Your task to perform on an android device: turn on data saver in the chrome app Image 0: 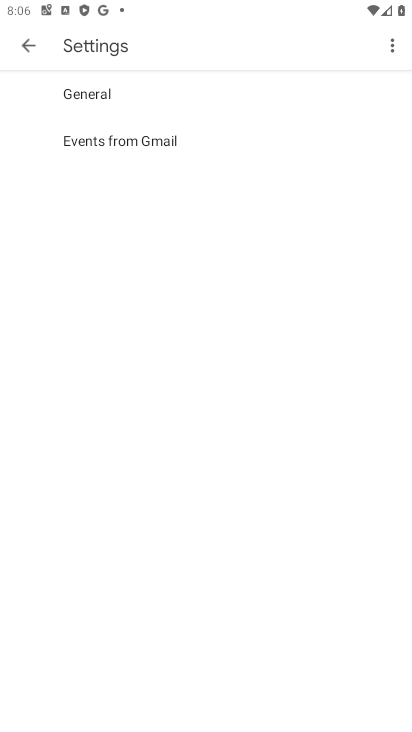
Step 0: press home button
Your task to perform on an android device: turn on data saver in the chrome app Image 1: 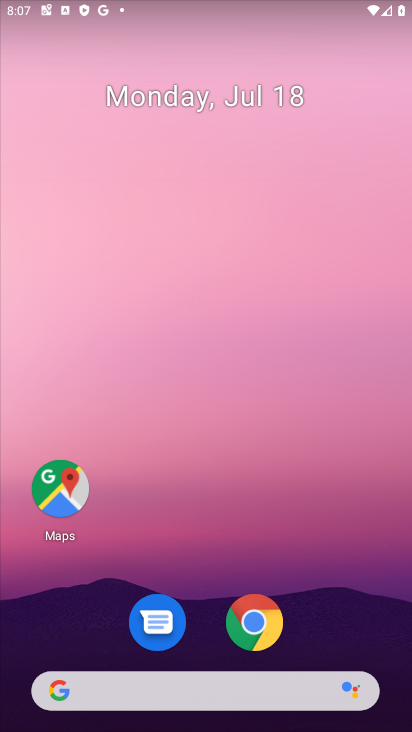
Step 1: drag from (254, 669) to (226, 95)
Your task to perform on an android device: turn on data saver in the chrome app Image 2: 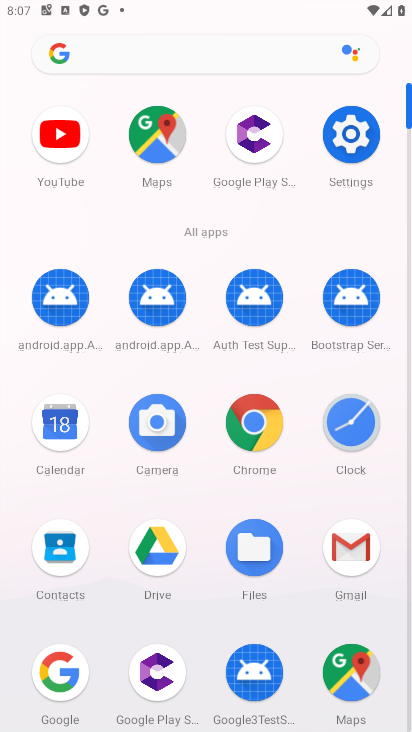
Step 2: click (258, 441)
Your task to perform on an android device: turn on data saver in the chrome app Image 3: 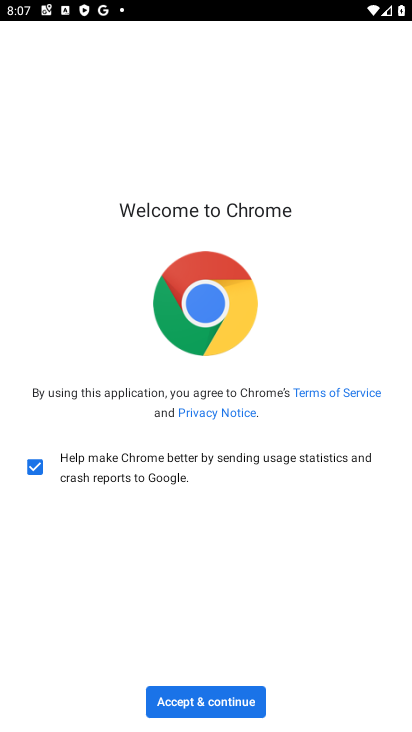
Step 3: click (222, 705)
Your task to perform on an android device: turn on data saver in the chrome app Image 4: 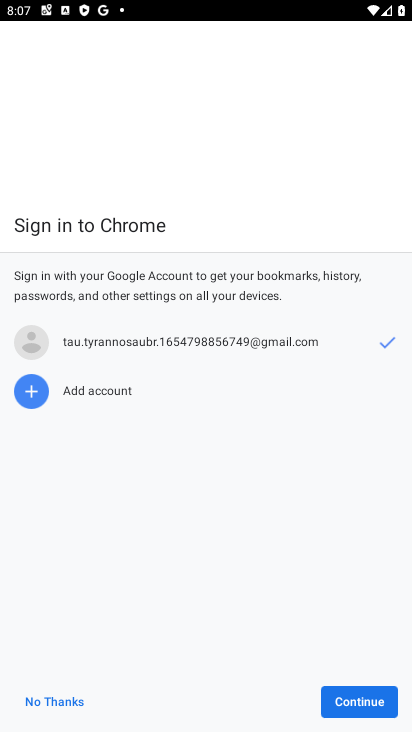
Step 4: click (352, 701)
Your task to perform on an android device: turn on data saver in the chrome app Image 5: 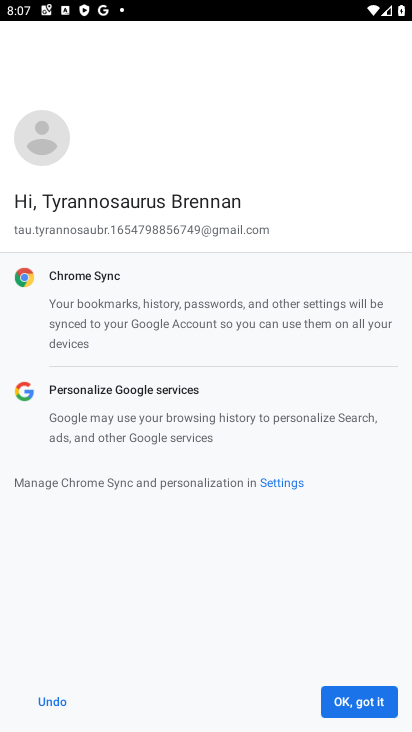
Step 5: click (368, 711)
Your task to perform on an android device: turn on data saver in the chrome app Image 6: 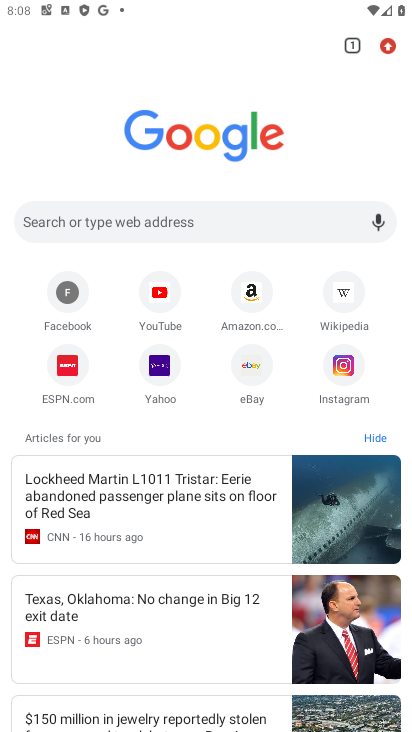
Step 6: click (388, 52)
Your task to perform on an android device: turn on data saver in the chrome app Image 7: 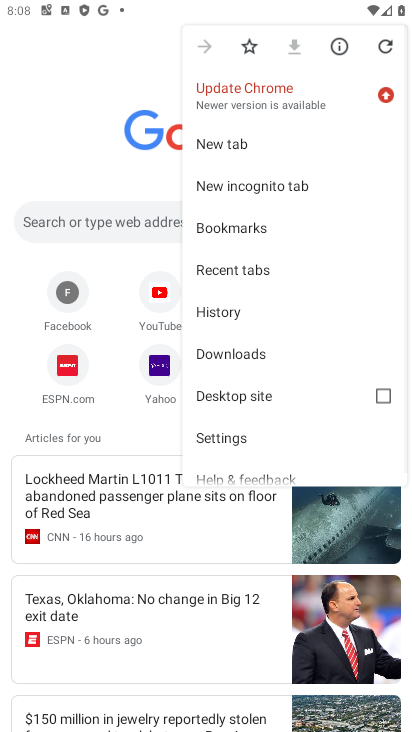
Step 7: drag from (272, 341) to (310, 53)
Your task to perform on an android device: turn on data saver in the chrome app Image 8: 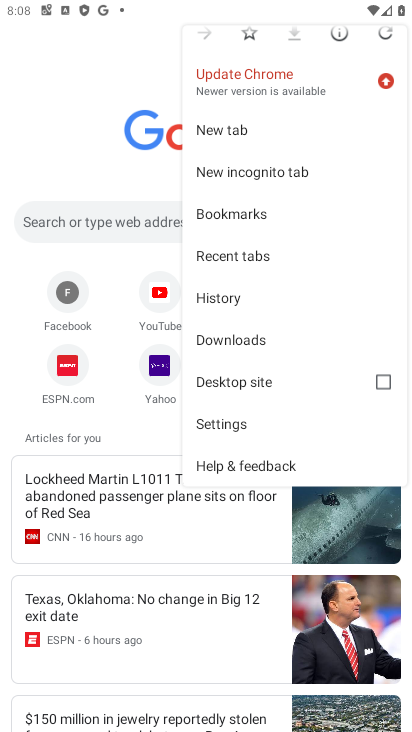
Step 8: click (228, 423)
Your task to perform on an android device: turn on data saver in the chrome app Image 9: 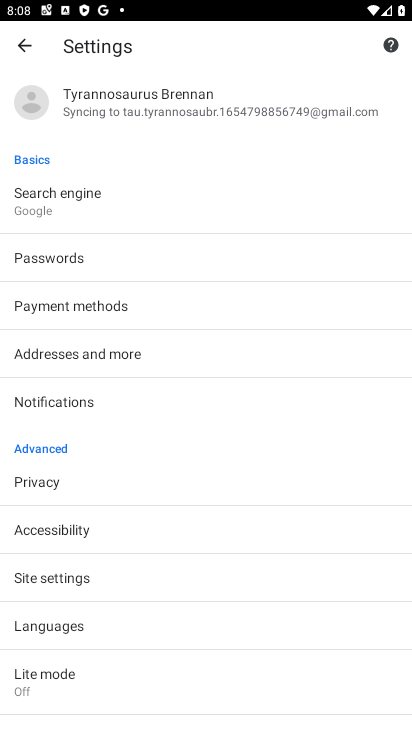
Step 9: drag from (191, 563) to (205, 360)
Your task to perform on an android device: turn on data saver in the chrome app Image 10: 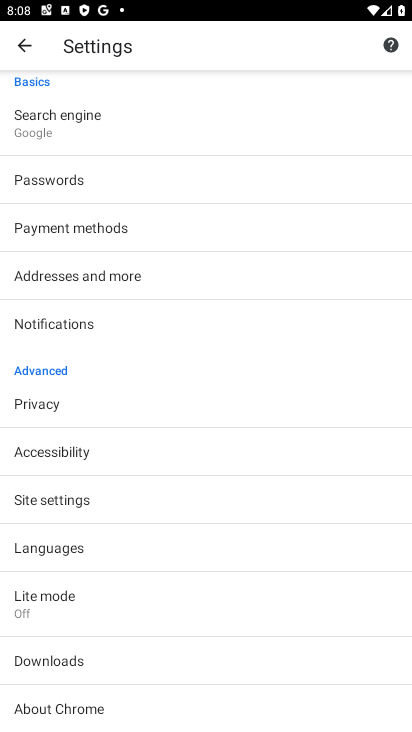
Step 10: click (82, 607)
Your task to perform on an android device: turn on data saver in the chrome app Image 11: 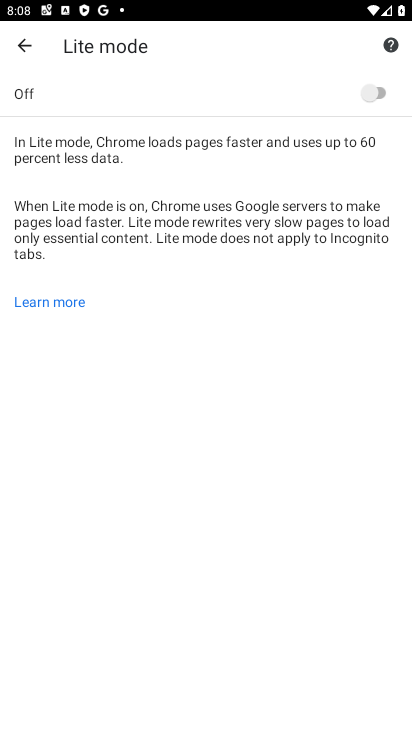
Step 11: click (381, 99)
Your task to perform on an android device: turn on data saver in the chrome app Image 12: 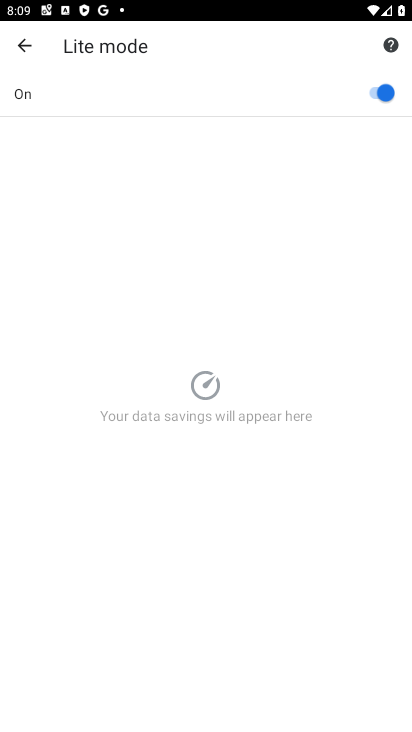
Step 12: task complete